Your task to perform on an android device: turn off location Image 0: 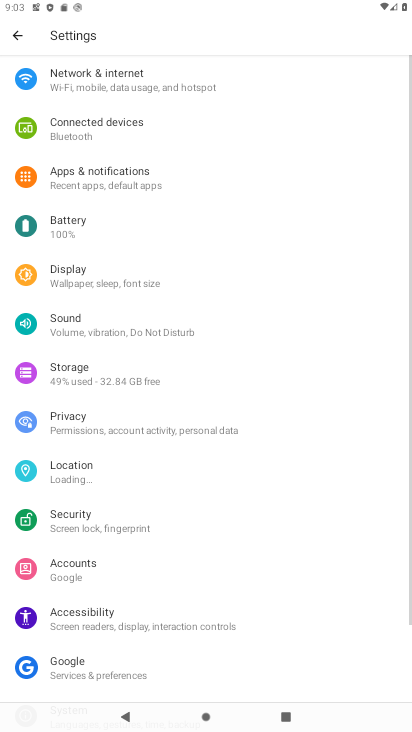
Step 0: click (90, 478)
Your task to perform on an android device: turn off location Image 1: 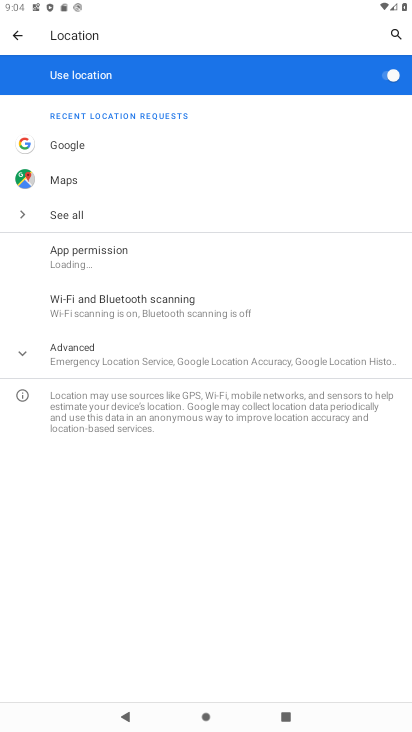
Step 1: click (362, 81)
Your task to perform on an android device: turn off location Image 2: 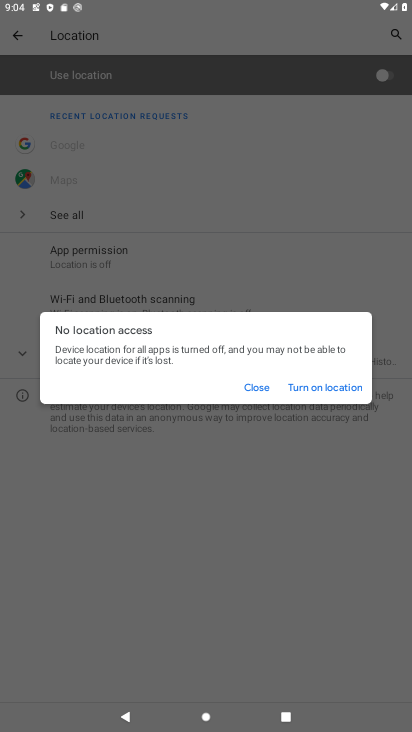
Step 2: click (256, 392)
Your task to perform on an android device: turn off location Image 3: 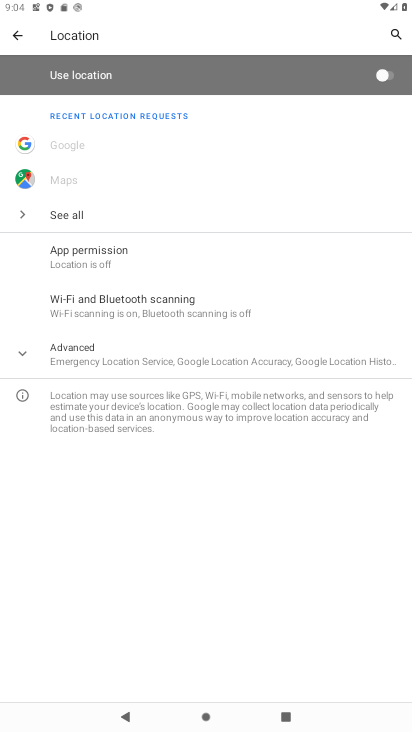
Step 3: task complete